Your task to perform on an android device: install app "Upside-Cash back on gas & food" Image 0: 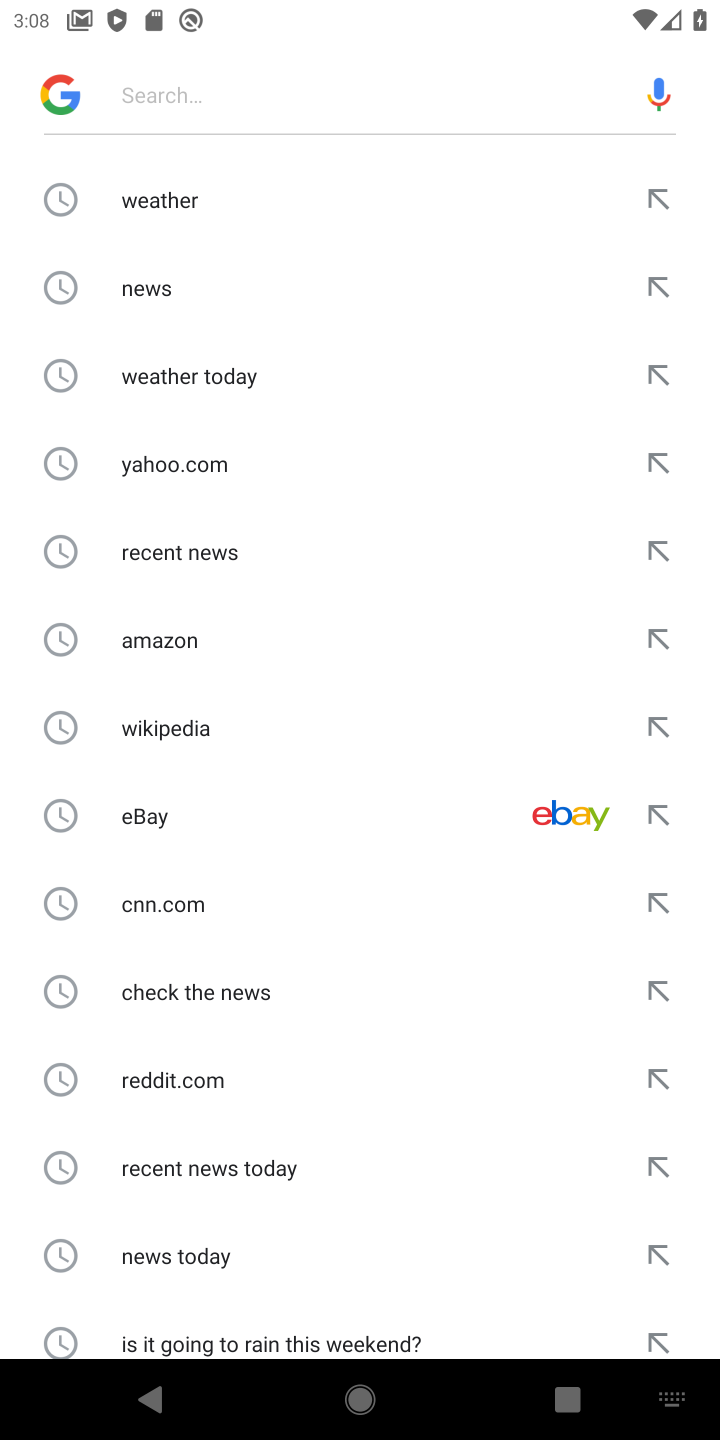
Step 0: press home button
Your task to perform on an android device: install app "Upside-Cash back on gas & food" Image 1: 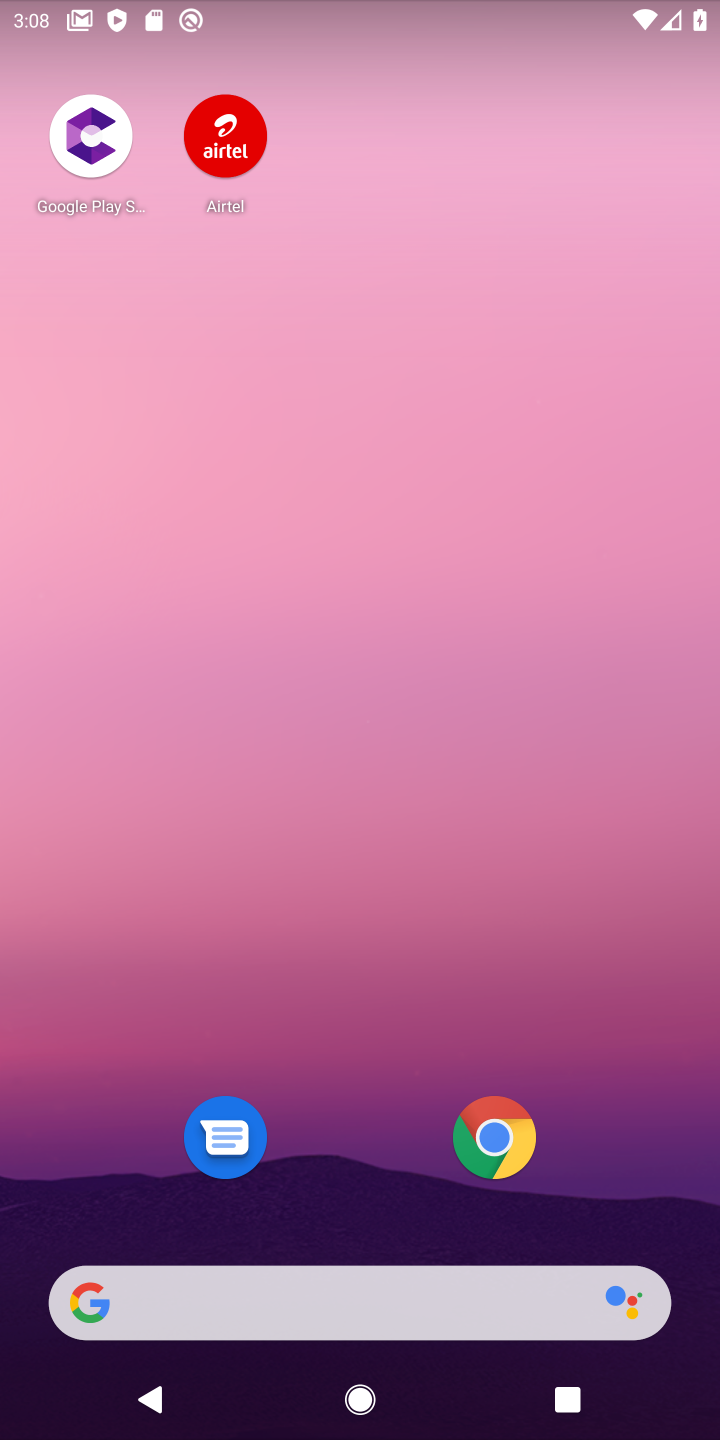
Step 1: drag from (329, 1191) to (399, 8)
Your task to perform on an android device: install app "Upside-Cash back on gas & food" Image 2: 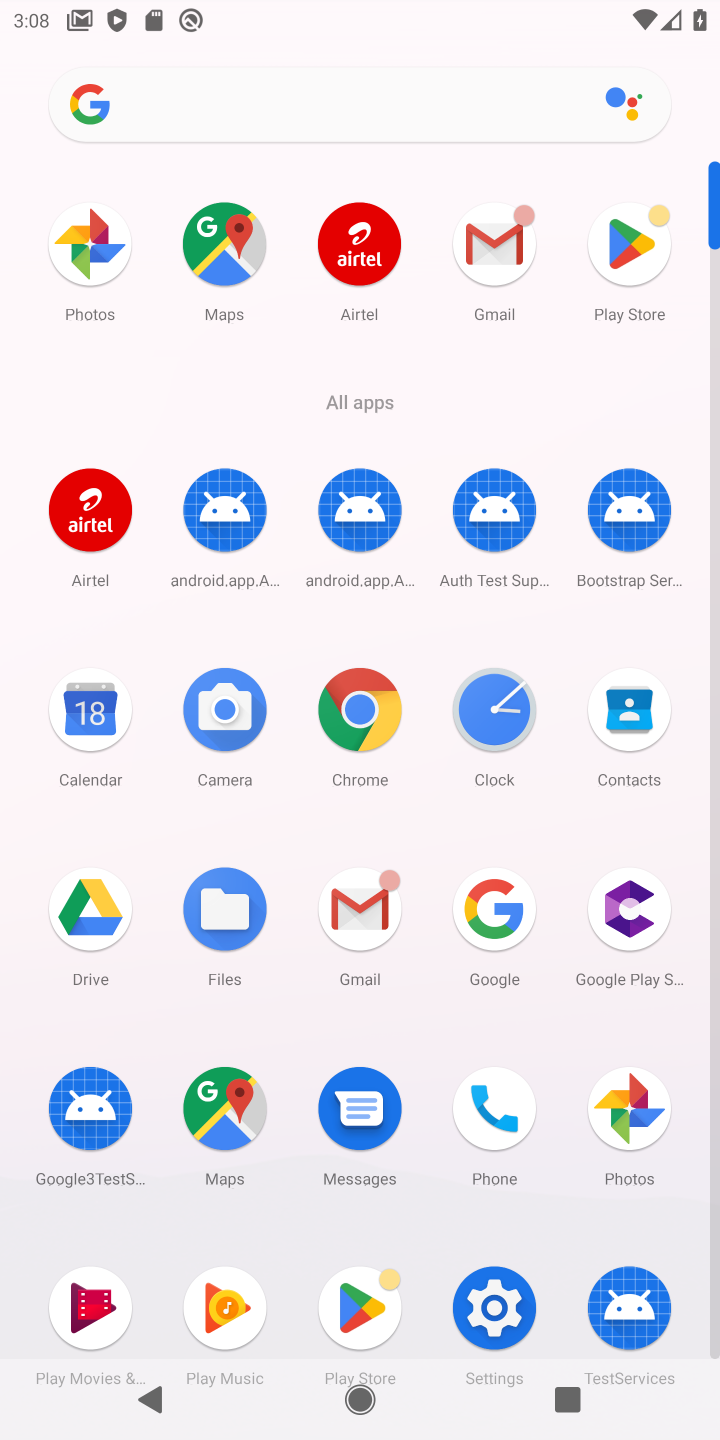
Step 2: click (636, 252)
Your task to perform on an android device: install app "Upside-Cash back on gas & food" Image 3: 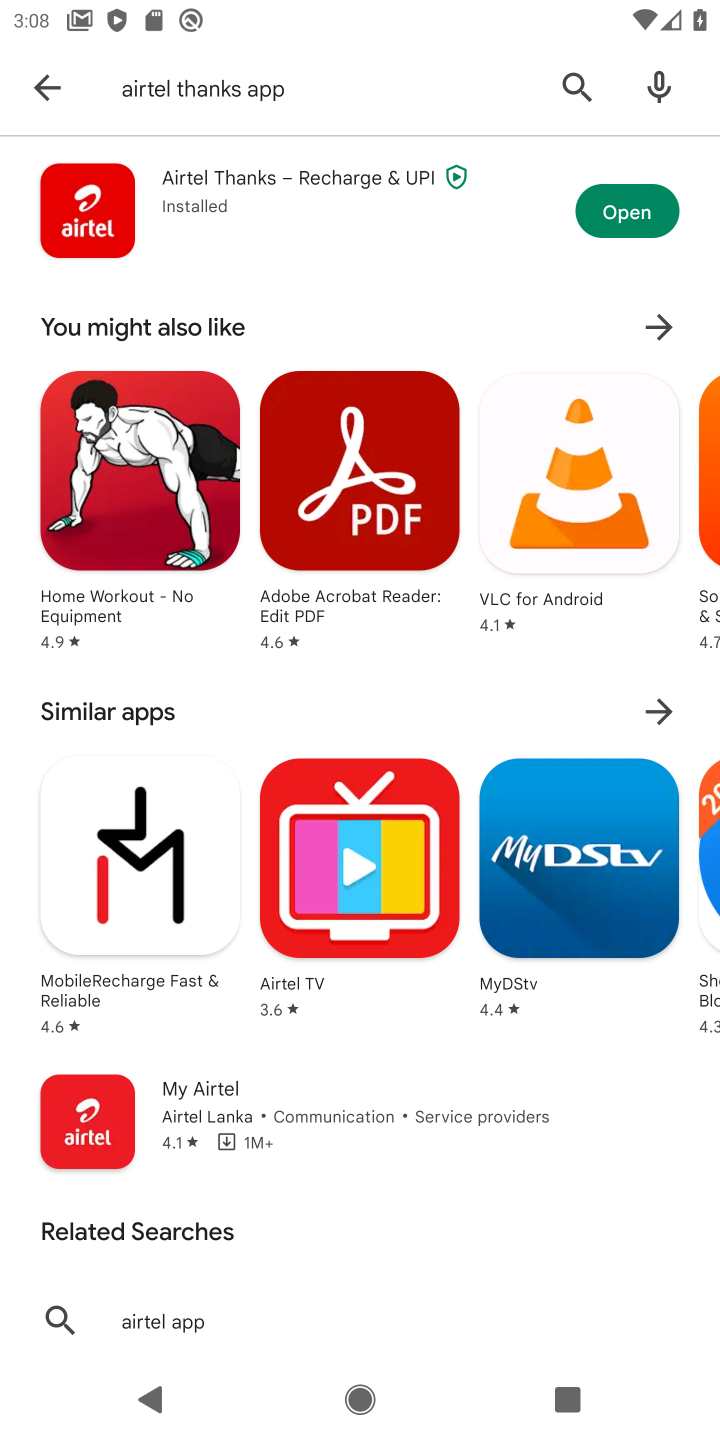
Step 3: click (46, 92)
Your task to perform on an android device: install app "Upside-Cash back on gas & food" Image 4: 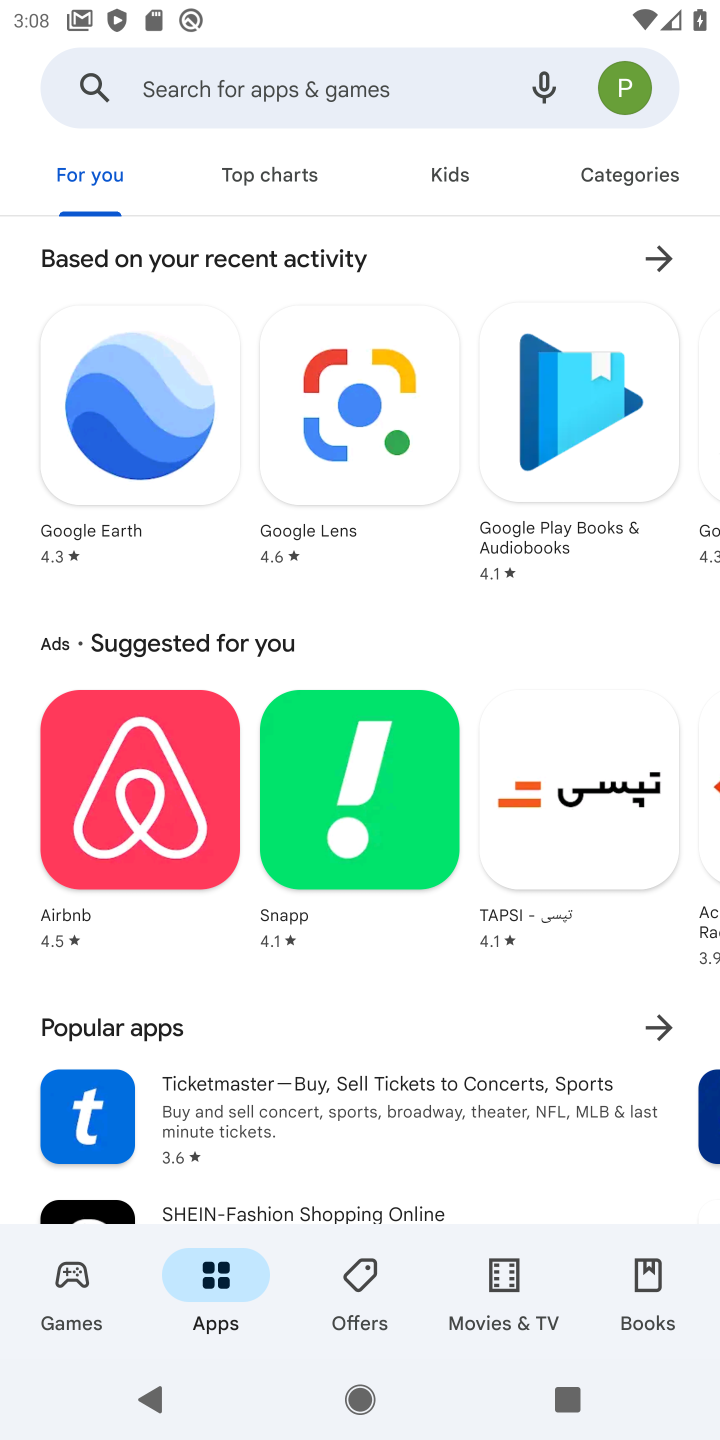
Step 4: click (202, 92)
Your task to perform on an android device: install app "Upside-Cash back on gas & food" Image 5: 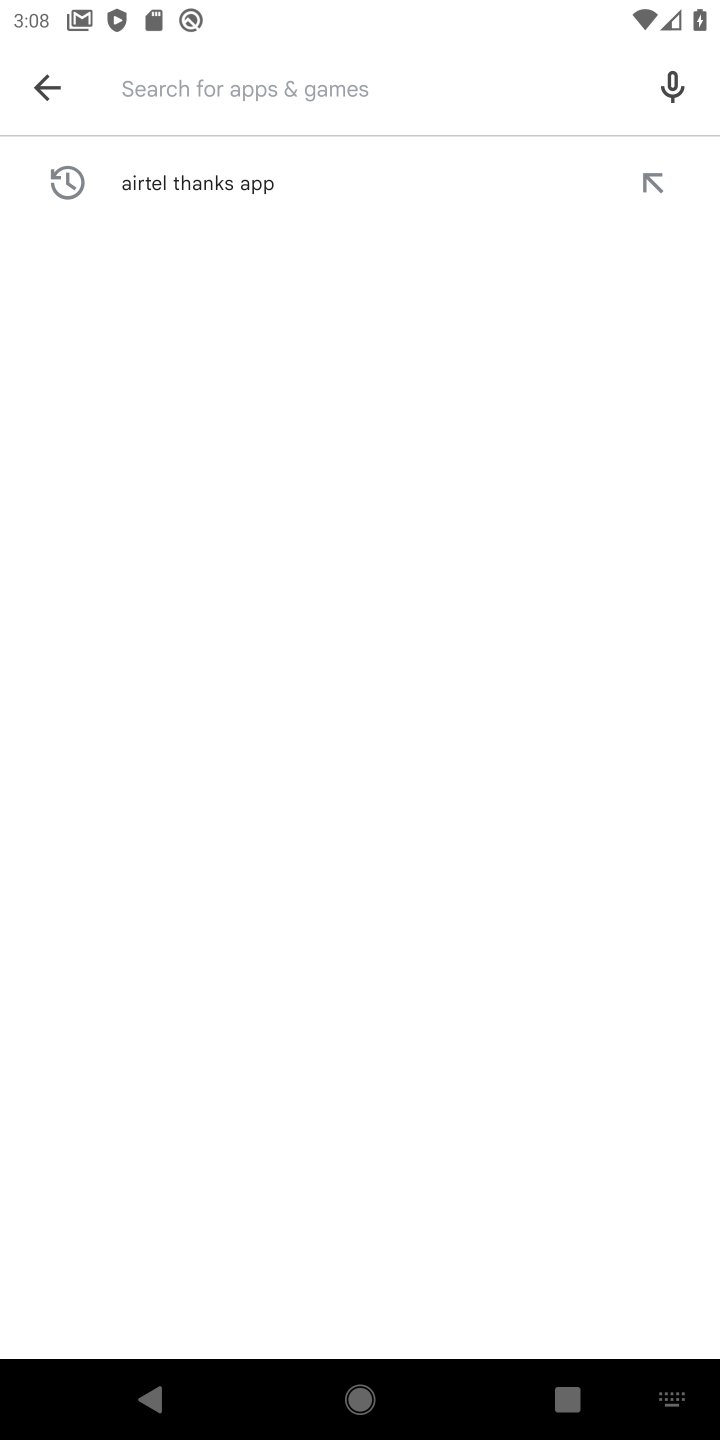
Step 5: type "Upside-Cash back on gas & food"
Your task to perform on an android device: install app "Upside-Cash back on gas & food" Image 6: 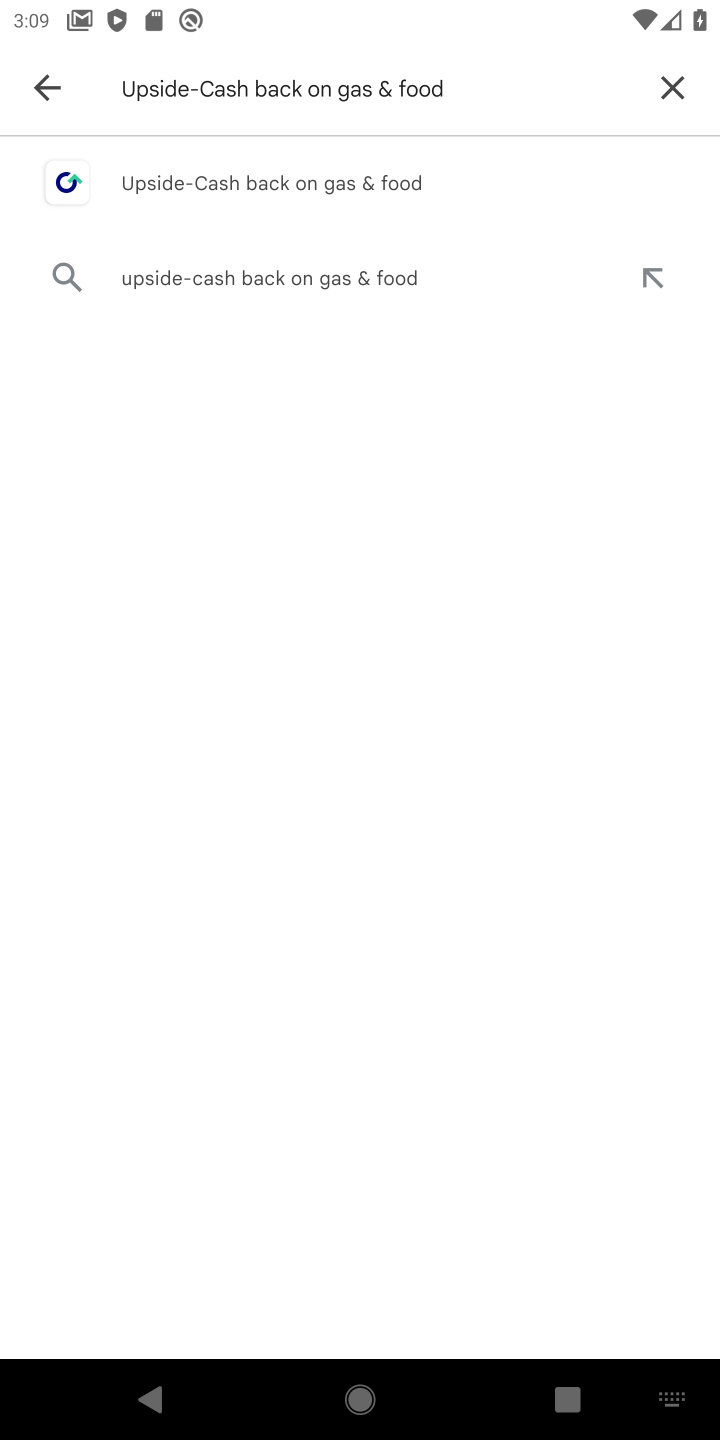
Step 6: click (357, 196)
Your task to perform on an android device: install app "Upside-Cash back on gas & food" Image 7: 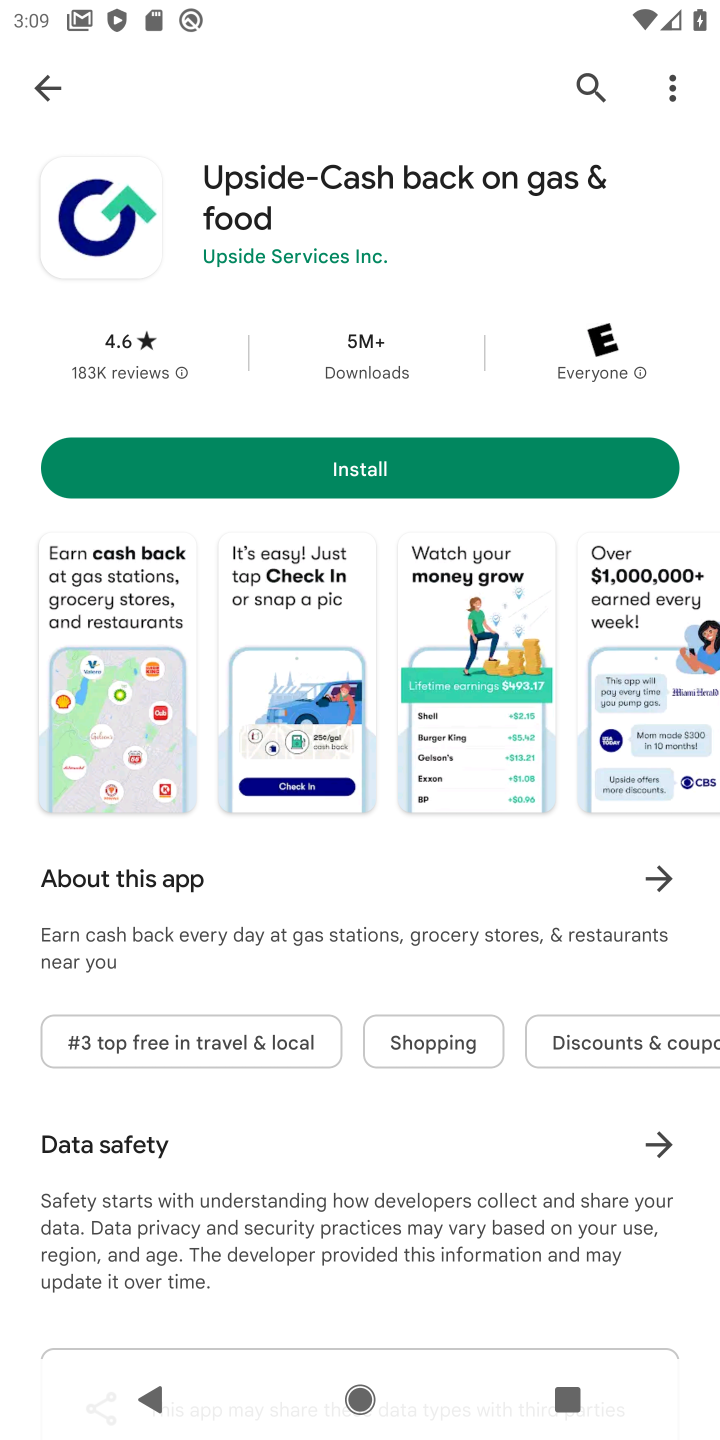
Step 7: click (350, 474)
Your task to perform on an android device: install app "Upside-Cash back on gas & food" Image 8: 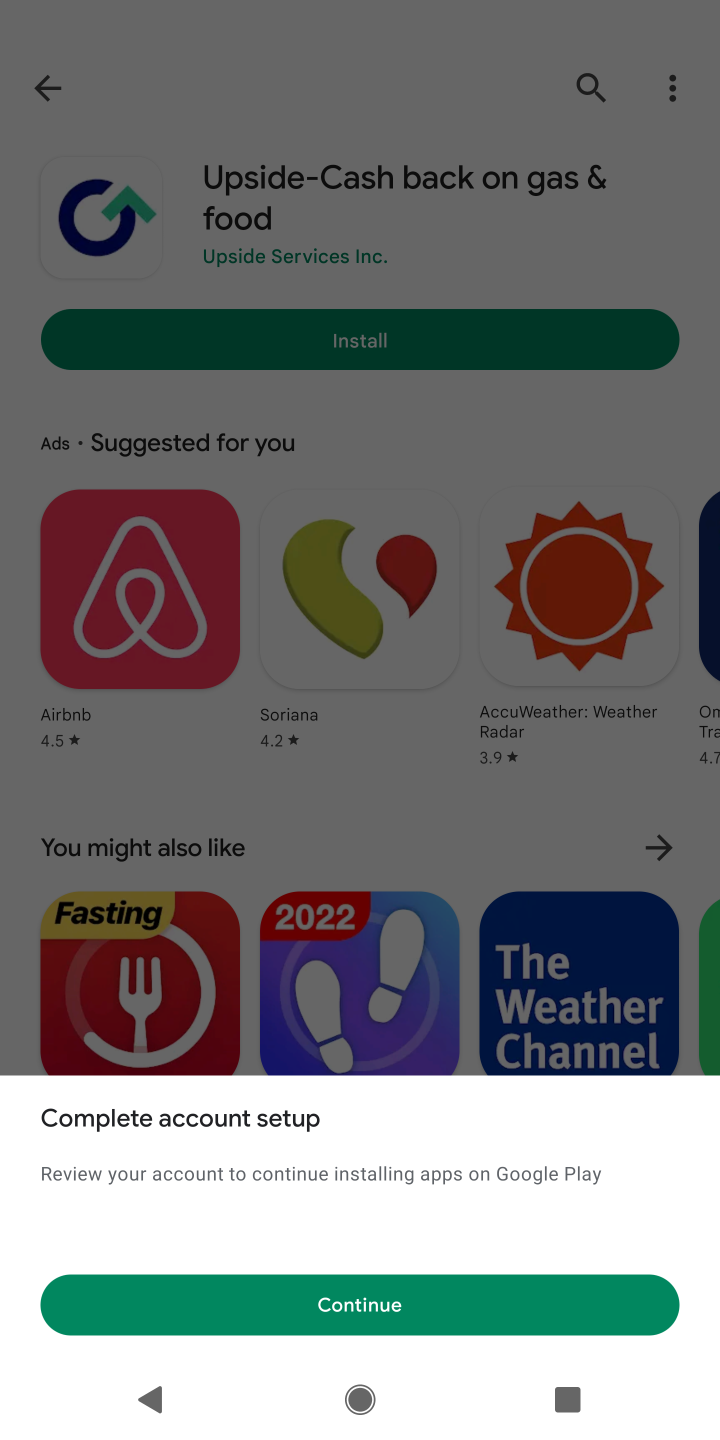
Step 8: click (456, 1295)
Your task to perform on an android device: install app "Upside-Cash back on gas & food" Image 9: 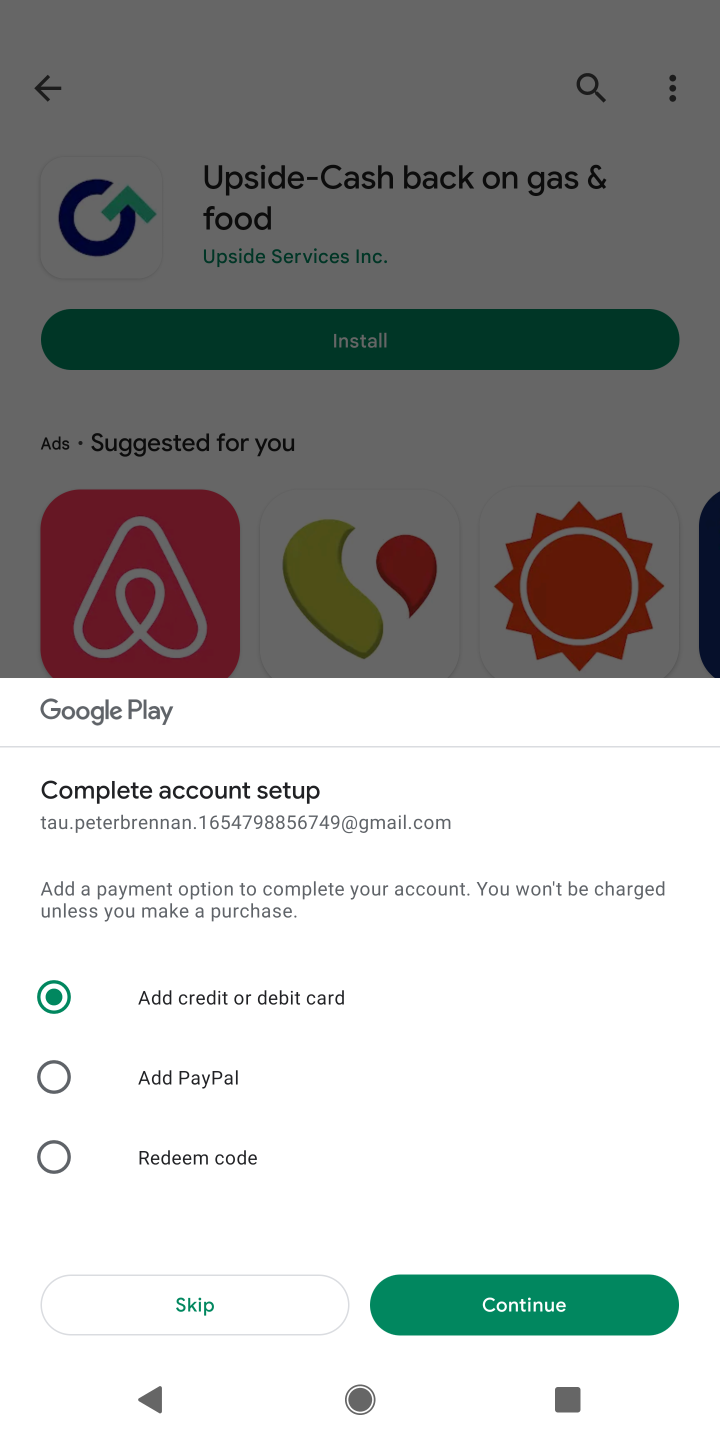
Step 9: click (182, 1293)
Your task to perform on an android device: install app "Upside-Cash back on gas & food" Image 10: 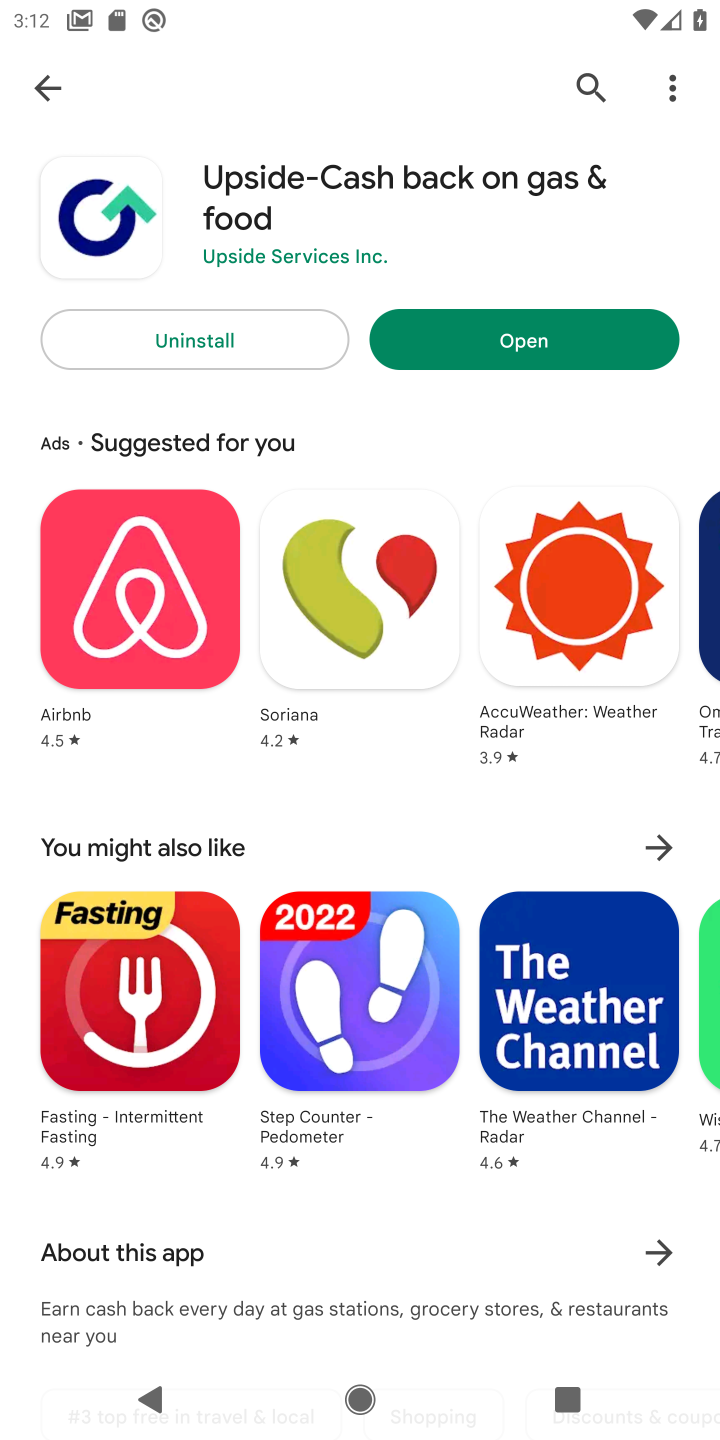
Step 10: click (516, 333)
Your task to perform on an android device: install app "Upside-Cash back on gas & food" Image 11: 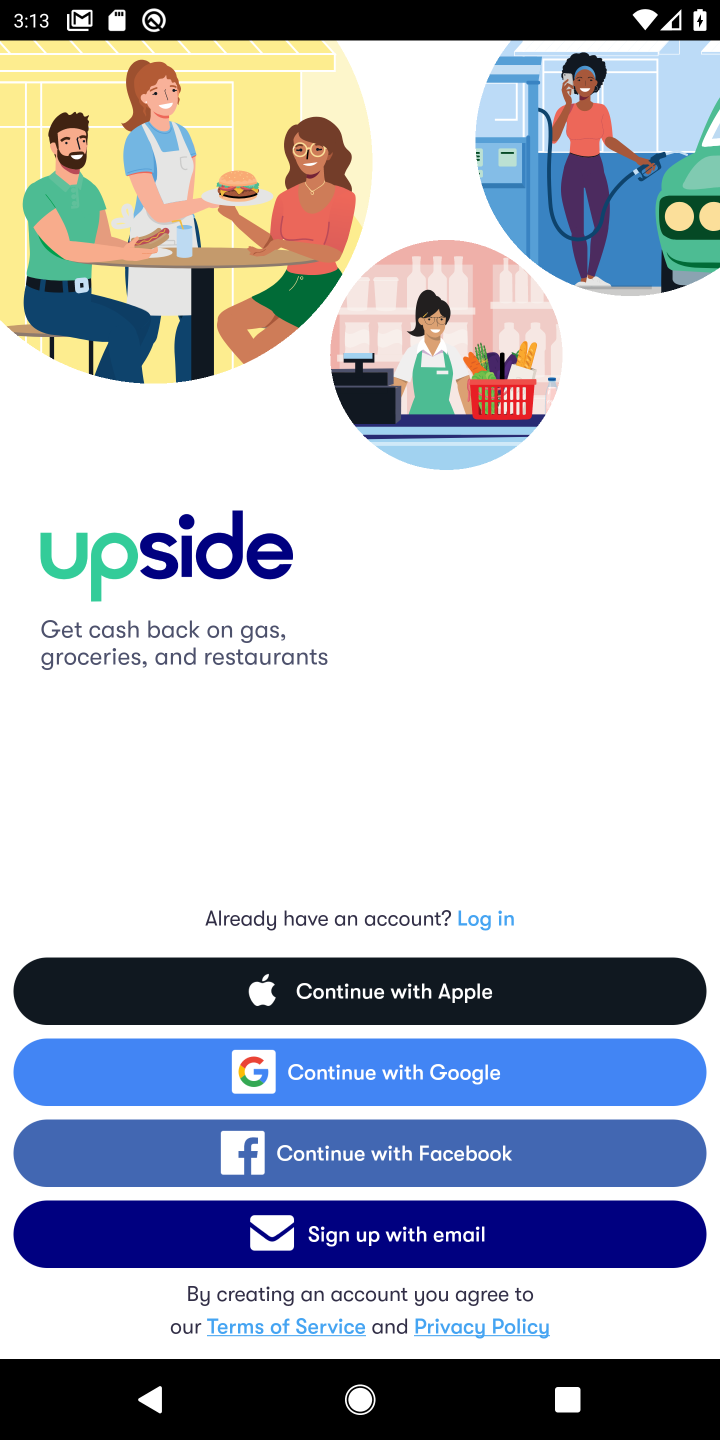
Step 11: task complete